Your task to perform on an android device: show emergency info Image 0: 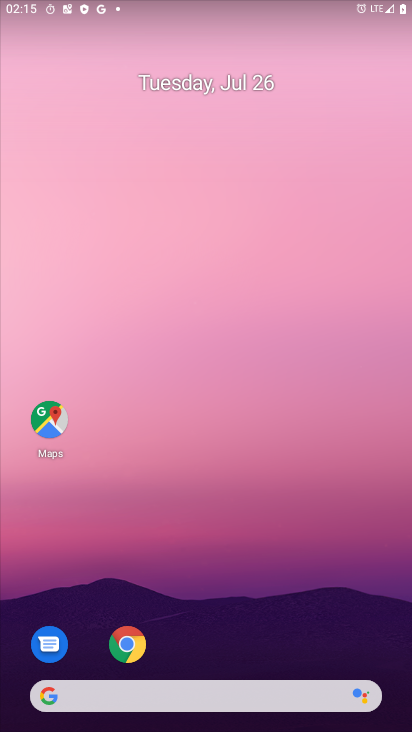
Step 0: press home button
Your task to perform on an android device: show emergency info Image 1: 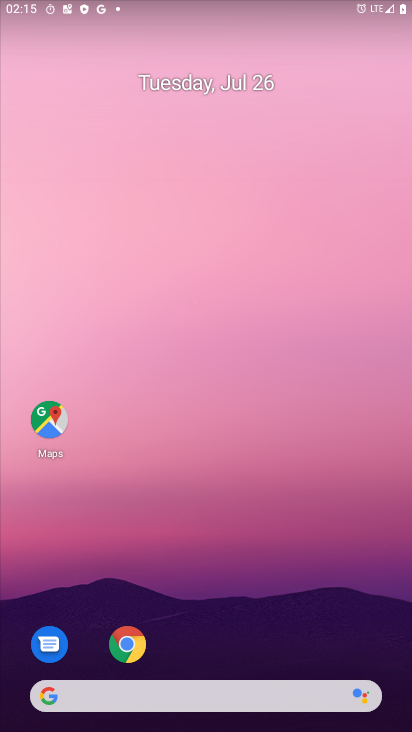
Step 1: drag from (214, 656) to (230, 28)
Your task to perform on an android device: show emergency info Image 2: 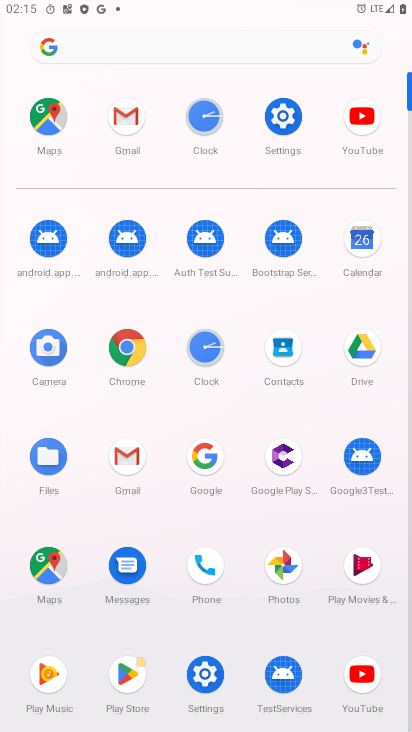
Step 2: click (280, 120)
Your task to perform on an android device: show emergency info Image 3: 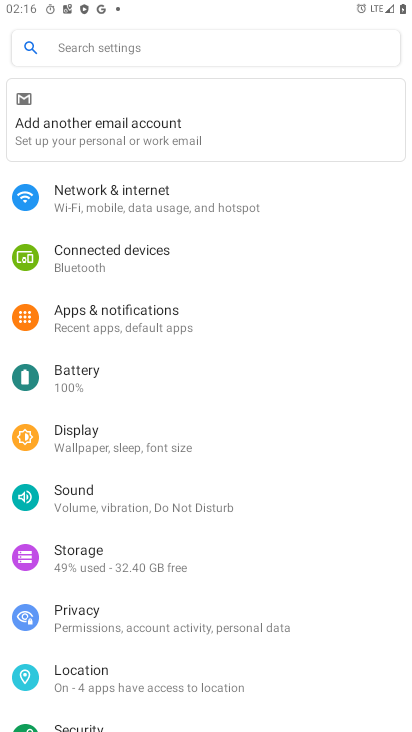
Step 3: drag from (238, 592) to (230, 229)
Your task to perform on an android device: show emergency info Image 4: 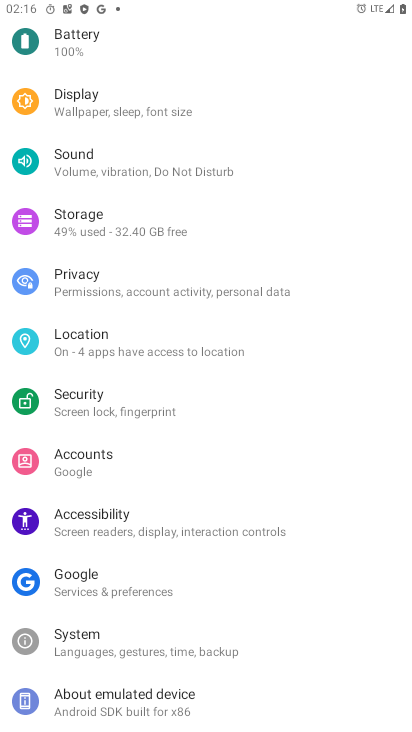
Step 4: drag from (204, 570) to (209, 221)
Your task to perform on an android device: show emergency info Image 5: 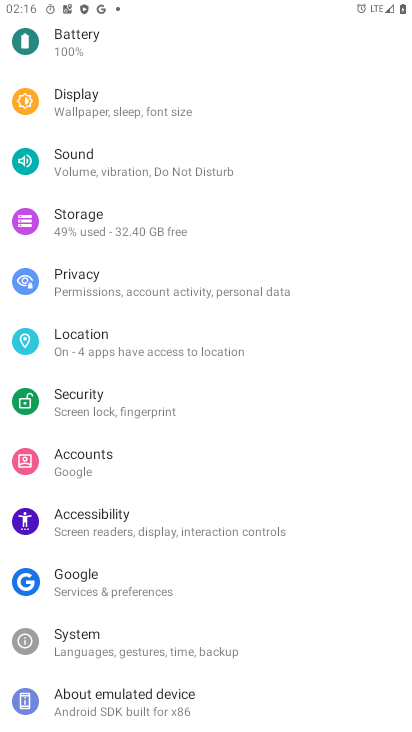
Step 5: click (111, 697)
Your task to perform on an android device: show emergency info Image 6: 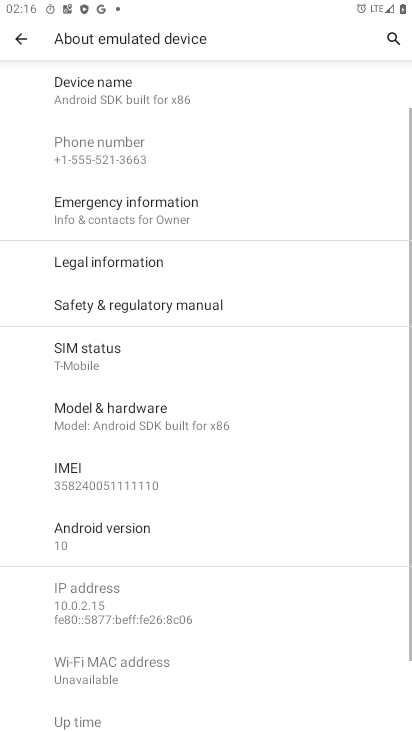
Step 6: click (126, 217)
Your task to perform on an android device: show emergency info Image 7: 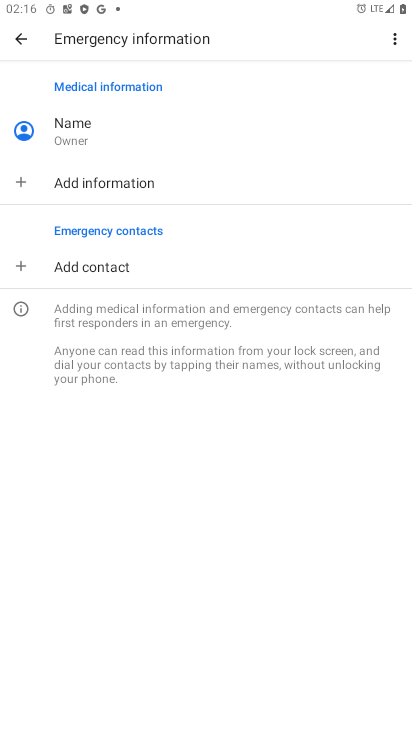
Step 7: task complete